Your task to perform on an android device: Open internet settings Image 0: 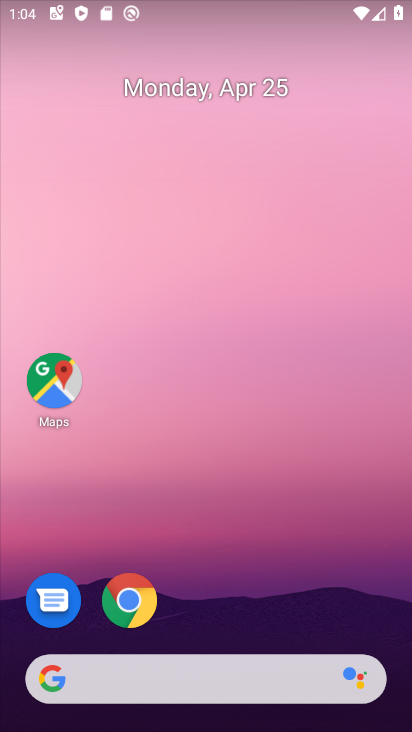
Step 0: drag from (173, 672) to (320, 64)
Your task to perform on an android device: Open internet settings Image 1: 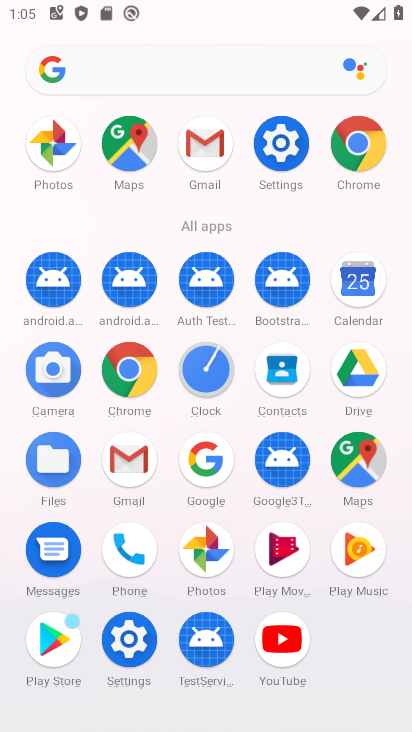
Step 1: click (271, 151)
Your task to perform on an android device: Open internet settings Image 2: 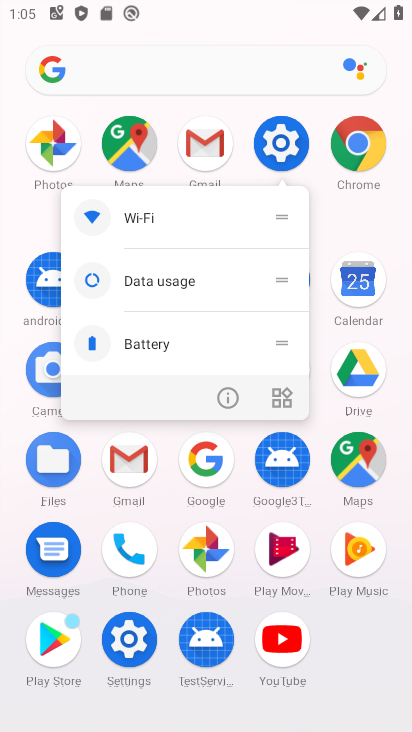
Step 2: click (280, 143)
Your task to perform on an android device: Open internet settings Image 3: 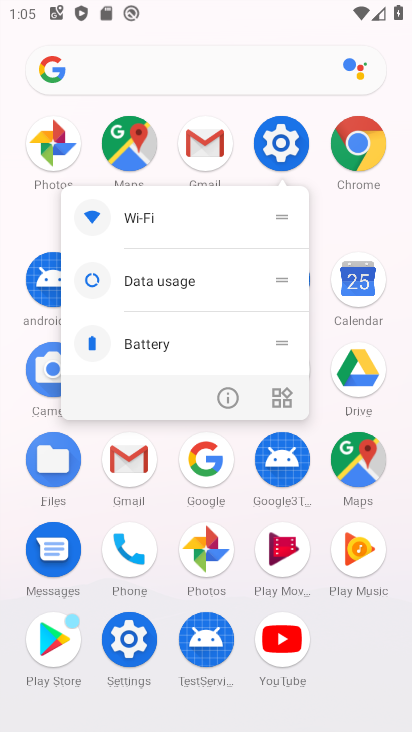
Step 3: click (285, 155)
Your task to perform on an android device: Open internet settings Image 4: 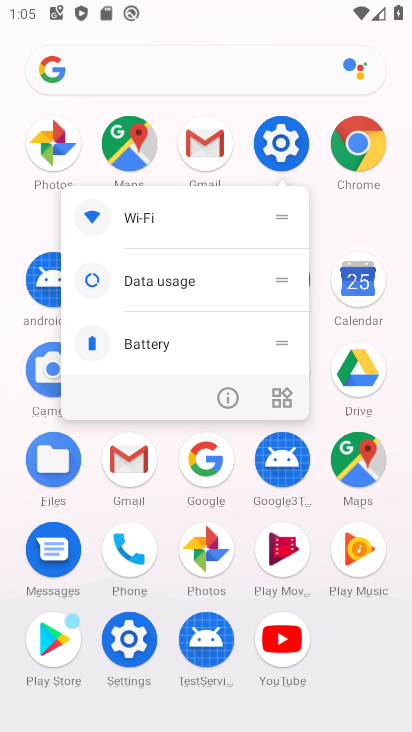
Step 4: click (288, 150)
Your task to perform on an android device: Open internet settings Image 5: 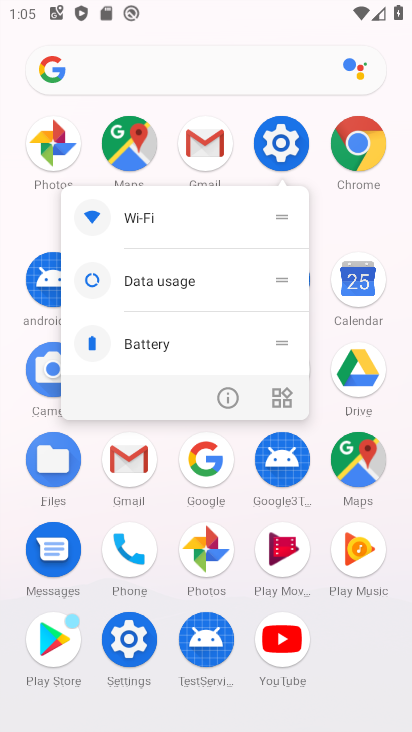
Step 5: click (288, 145)
Your task to perform on an android device: Open internet settings Image 6: 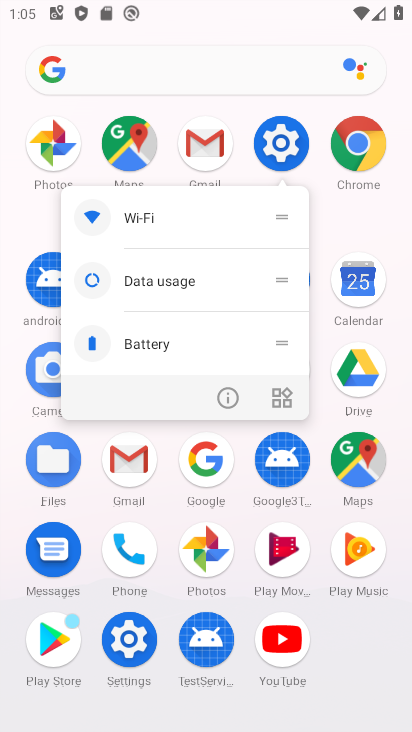
Step 6: click (282, 147)
Your task to perform on an android device: Open internet settings Image 7: 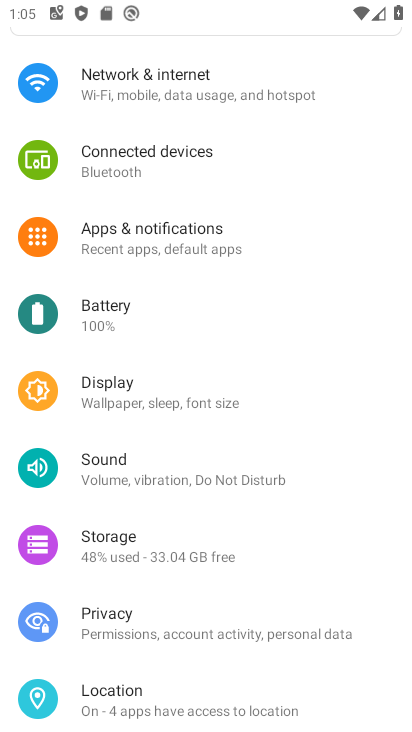
Step 7: click (181, 81)
Your task to perform on an android device: Open internet settings Image 8: 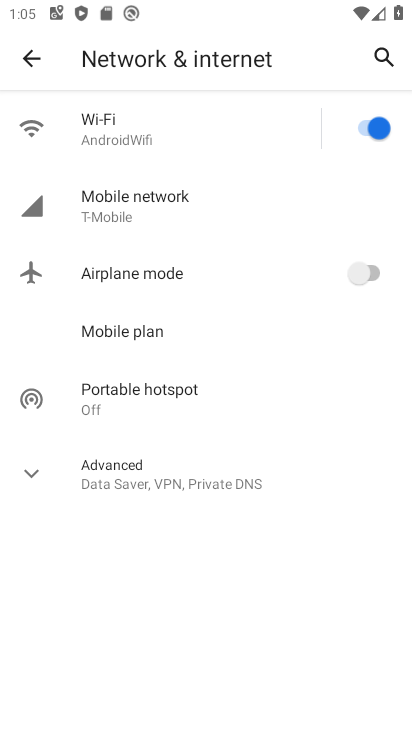
Step 8: task complete